Your task to perform on an android device: Set the phone to "Do not disturb". Image 0: 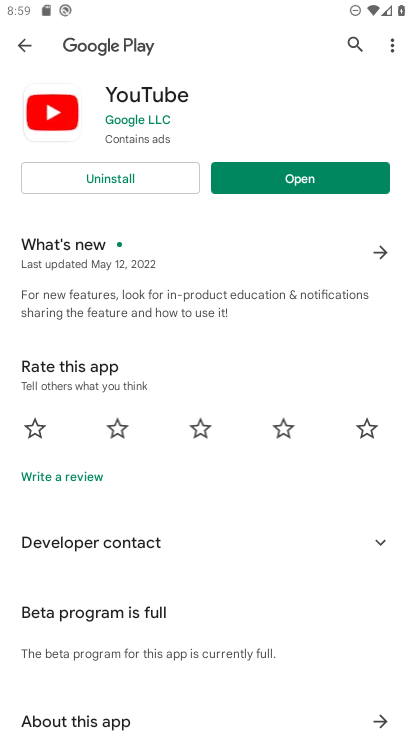
Step 0: press home button
Your task to perform on an android device: Set the phone to "Do not disturb". Image 1: 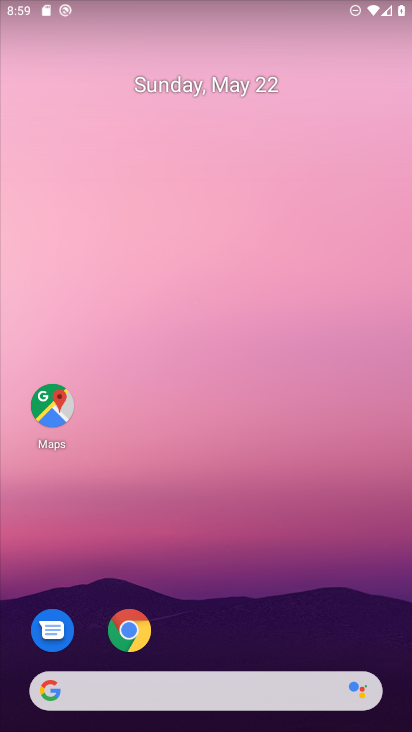
Step 1: drag from (276, 611) to (260, 66)
Your task to perform on an android device: Set the phone to "Do not disturb". Image 2: 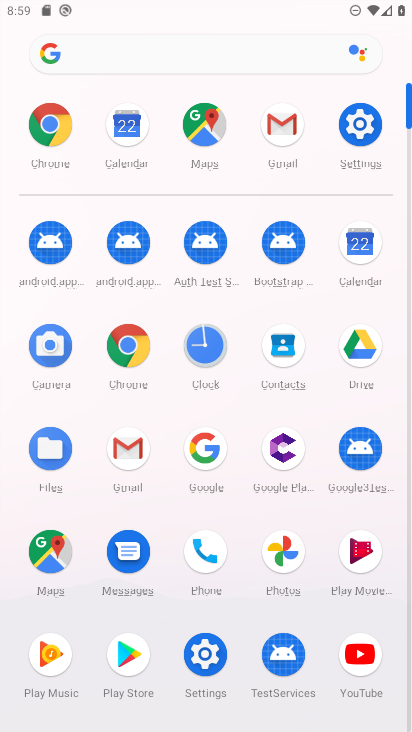
Step 2: click (357, 149)
Your task to perform on an android device: Set the phone to "Do not disturb". Image 3: 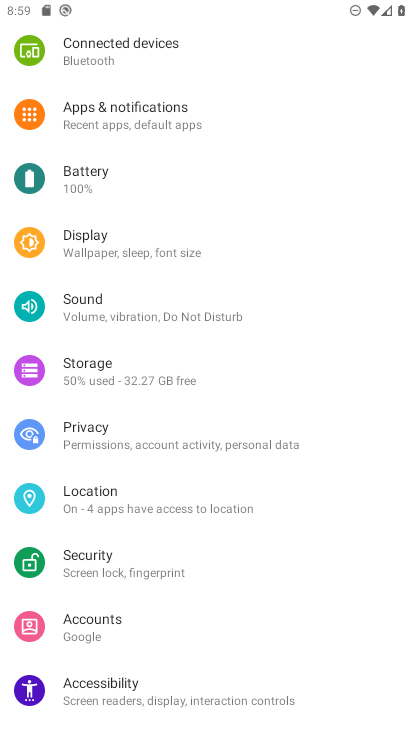
Step 3: drag from (209, 621) to (256, 365)
Your task to perform on an android device: Set the phone to "Do not disturb". Image 4: 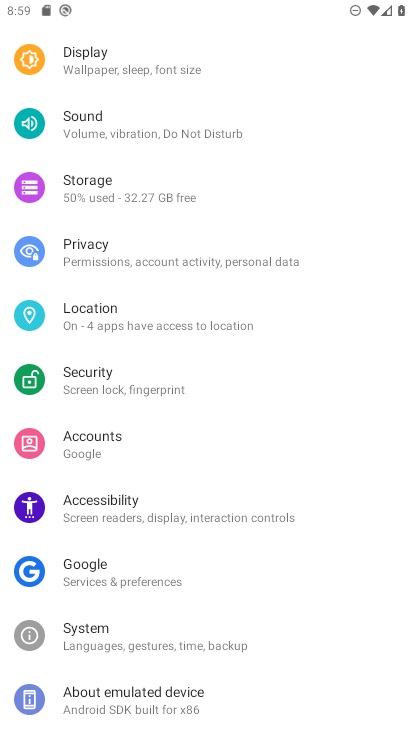
Step 4: click (117, 109)
Your task to perform on an android device: Set the phone to "Do not disturb". Image 5: 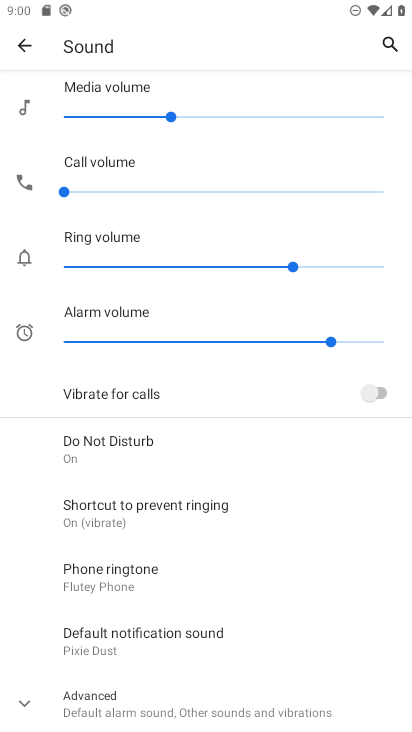
Step 5: click (240, 458)
Your task to perform on an android device: Set the phone to "Do not disturb". Image 6: 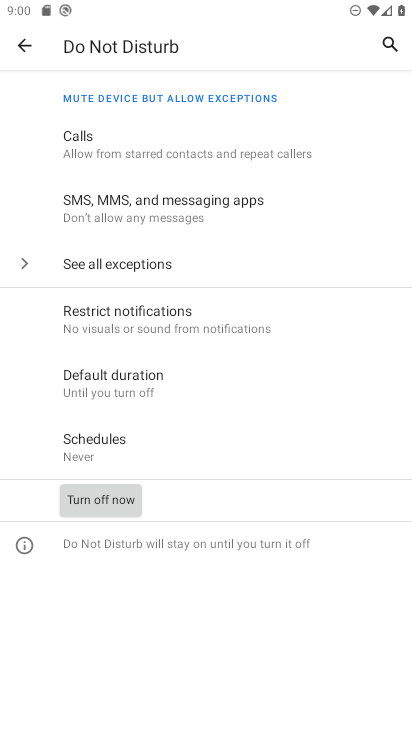
Step 6: task complete